Your task to perform on an android device: Set the phone to "Do not disturb". Image 0: 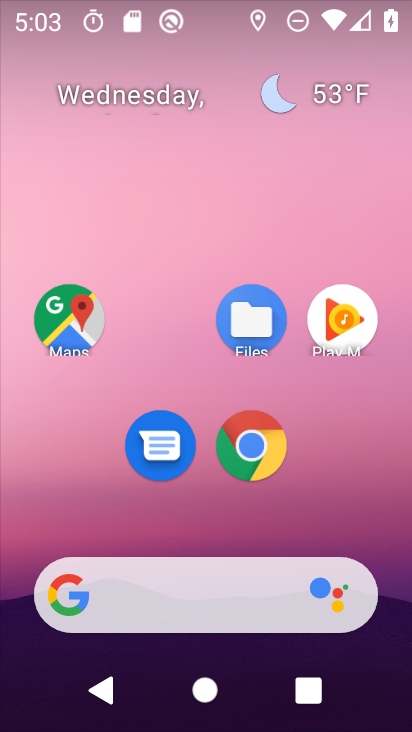
Step 0: drag from (350, 706) to (266, 202)
Your task to perform on an android device: Set the phone to "Do not disturb". Image 1: 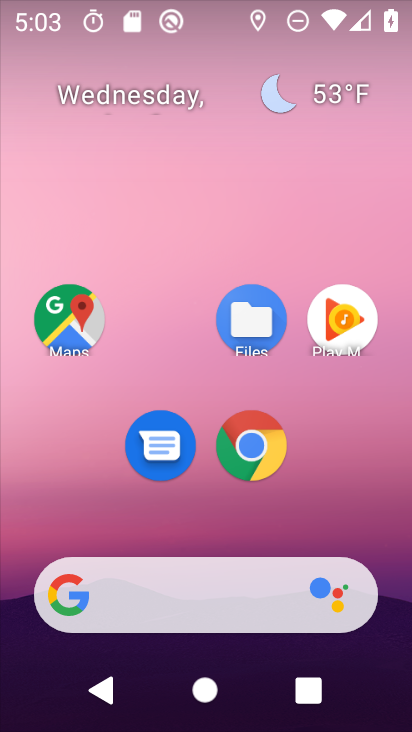
Step 1: drag from (387, 491) to (411, 117)
Your task to perform on an android device: Set the phone to "Do not disturb". Image 2: 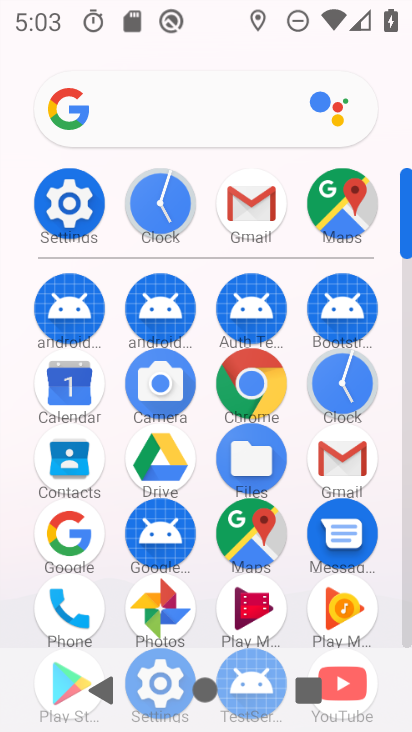
Step 2: click (82, 207)
Your task to perform on an android device: Set the phone to "Do not disturb". Image 3: 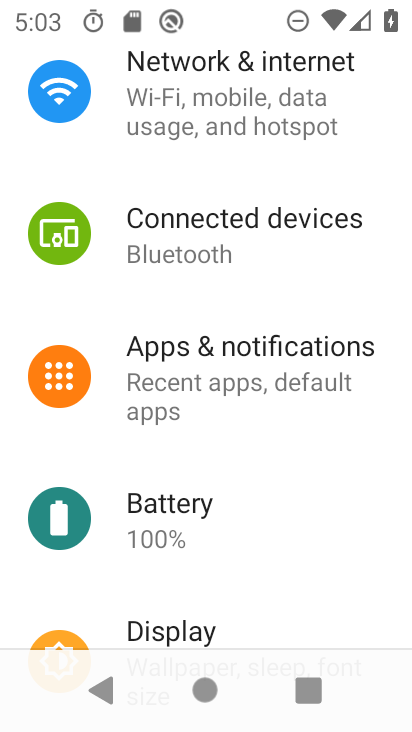
Step 3: click (275, 606)
Your task to perform on an android device: Set the phone to "Do not disturb". Image 4: 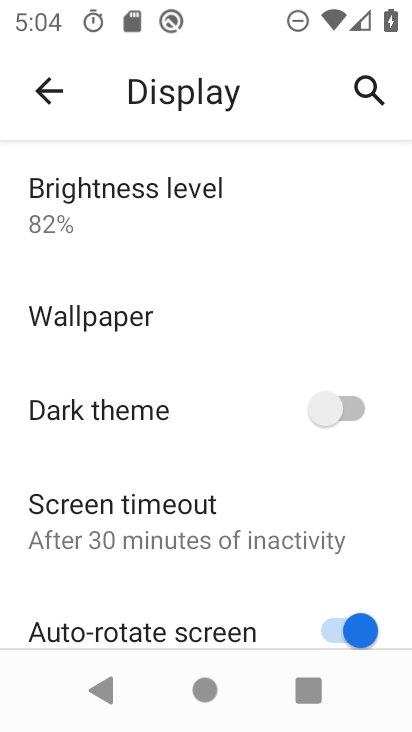
Step 4: drag from (258, 573) to (235, 393)
Your task to perform on an android device: Set the phone to "Do not disturb". Image 5: 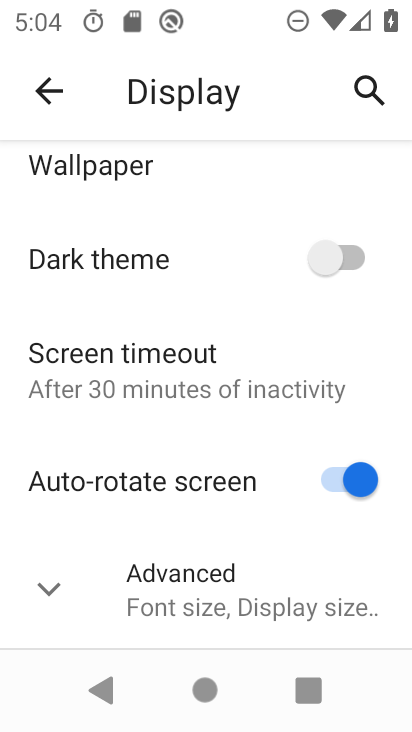
Step 5: click (255, 548)
Your task to perform on an android device: Set the phone to "Do not disturb". Image 6: 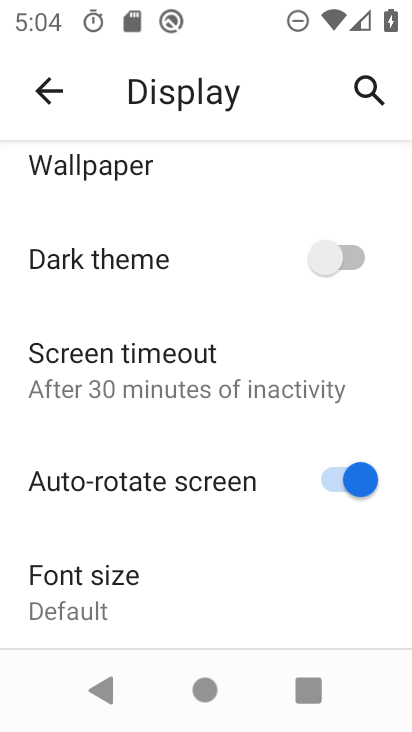
Step 6: drag from (234, 630) to (216, 502)
Your task to perform on an android device: Set the phone to "Do not disturb". Image 7: 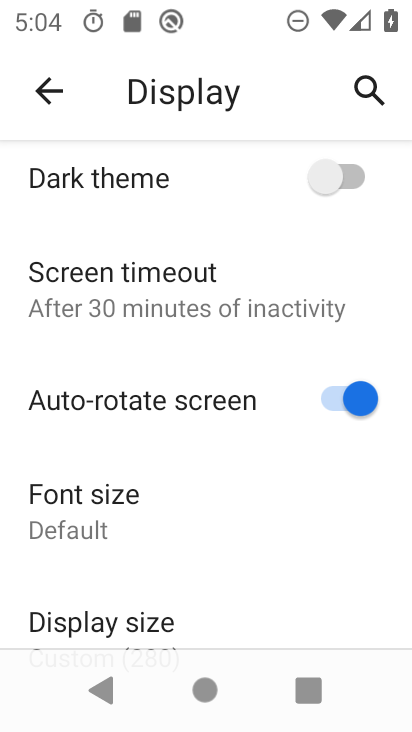
Step 7: press back button
Your task to perform on an android device: Set the phone to "Do not disturb". Image 8: 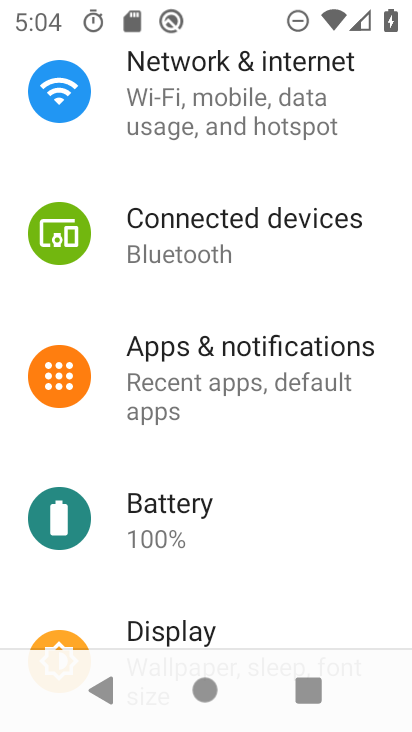
Step 8: click (260, 378)
Your task to perform on an android device: Set the phone to "Do not disturb". Image 9: 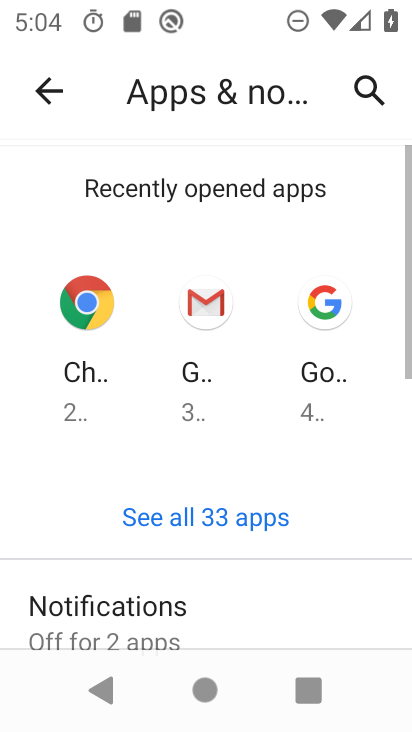
Step 9: drag from (248, 529) to (243, 394)
Your task to perform on an android device: Set the phone to "Do not disturb". Image 10: 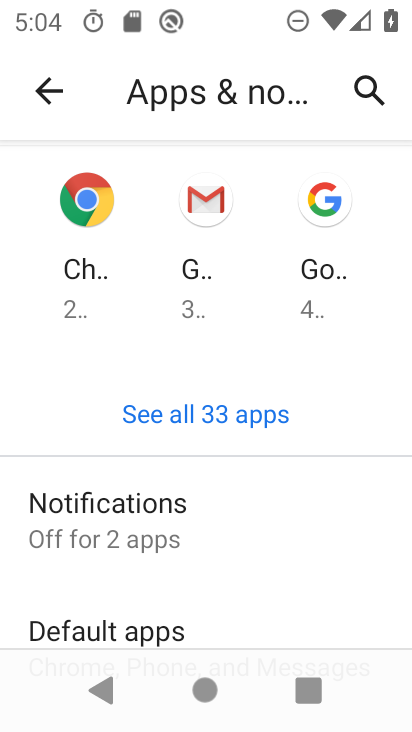
Step 10: drag from (258, 561) to (246, 382)
Your task to perform on an android device: Set the phone to "Do not disturb". Image 11: 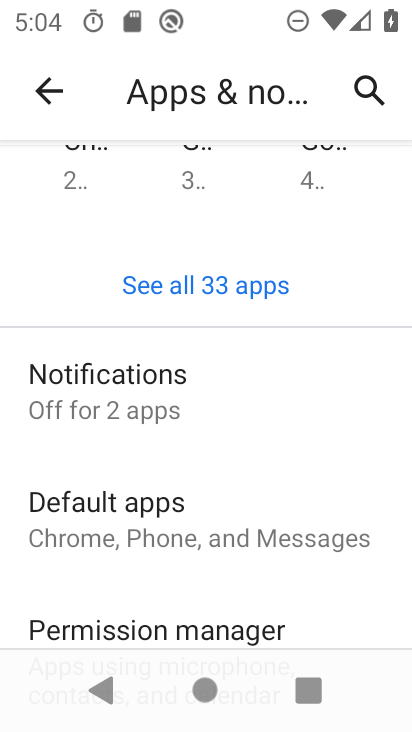
Step 11: drag from (252, 565) to (263, 399)
Your task to perform on an android device: Set the phone to "Do not disturb". Image 12: 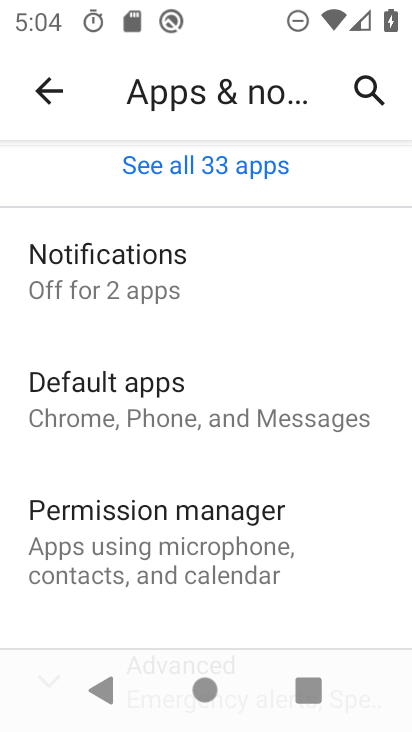
Step 12: press back button
Your task to perform on an android device: Set the phone to "Do not disturb". Image 13: 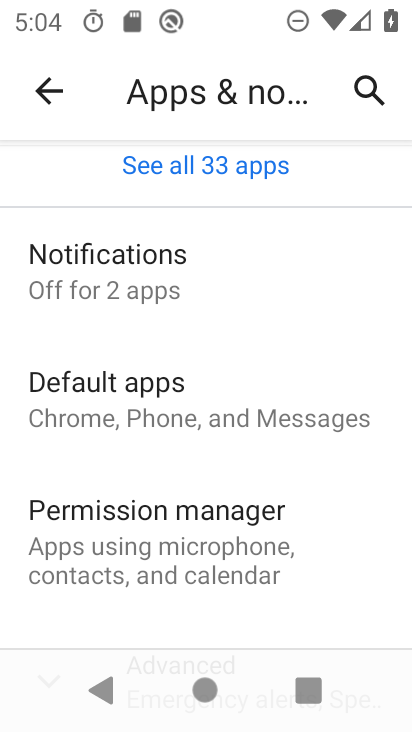
Step 13: press back button
Your task to perform on an android device: Set the phone to "Do not disturb". Image 14: 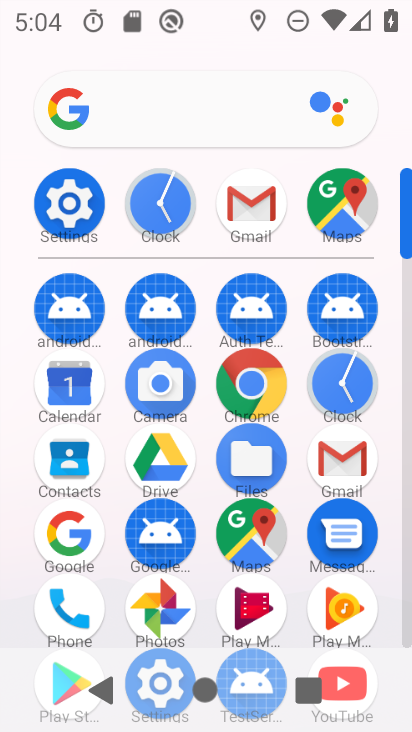
Step 14: click (47, 204)
Your task to perform on an android device: Set the phone to "Do not disturb". Image 15: 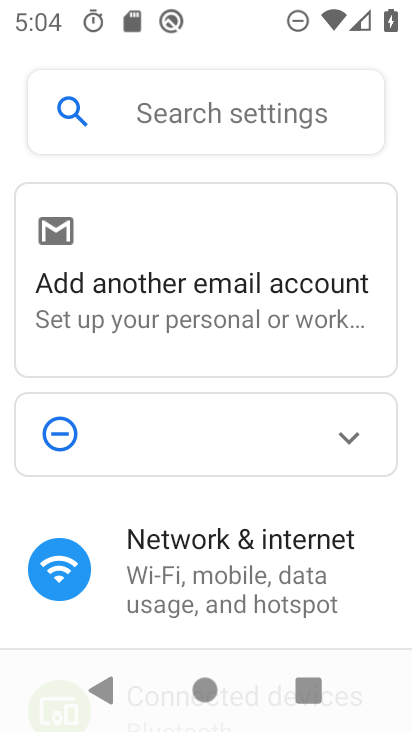
Step 15: drag from (388, 622) to (376, 438)
Your task to perform on an android device: Set the phone to "Do not disturb". Image 16: 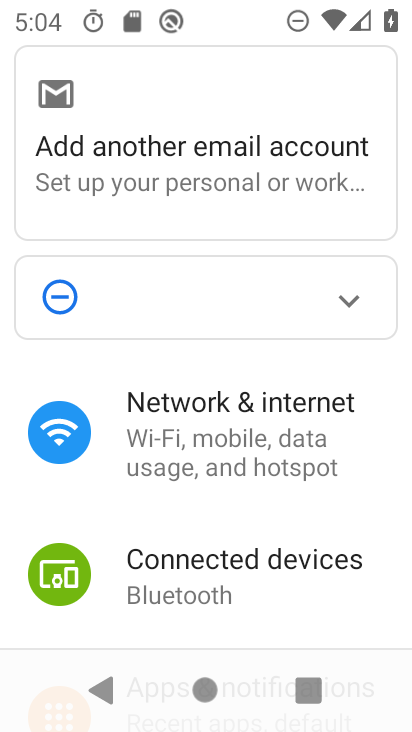
Step 16: click (371, 586)
Your task to perform on an android device: Set the phone to "Do not disturb". Image 17: 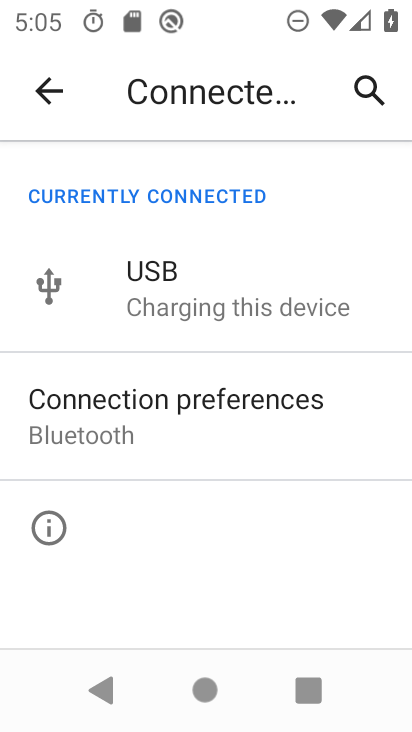
Step 17: press back button
Your task to perform on an android device: Set the phone to "Do not disturb". Image 18: 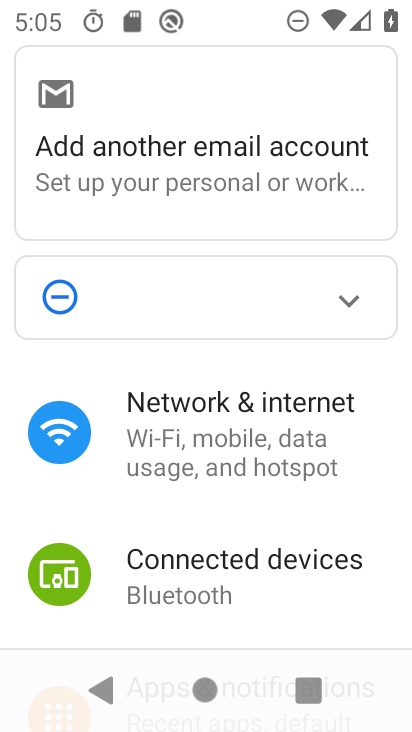
Step 18: drag from (281, 611) to (288, 236)
Your task to perform on an android device: Set the phone to "Do not disturb". Image 19: 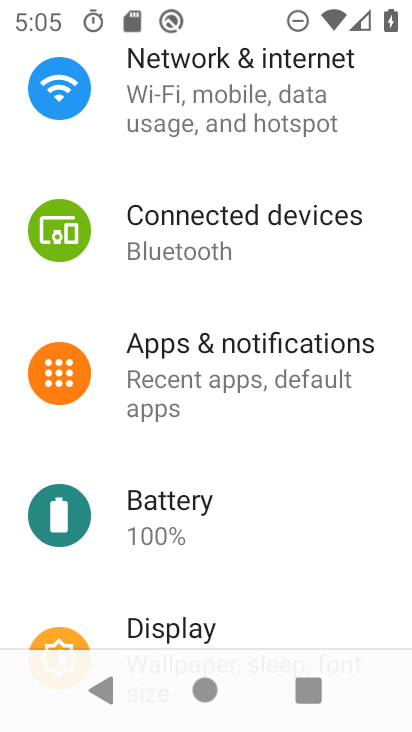
Step 19: drag from (274, 542) to (285, 190)
Your task to perform on an android device: Set the phone to "Do not disturb". Image 20: 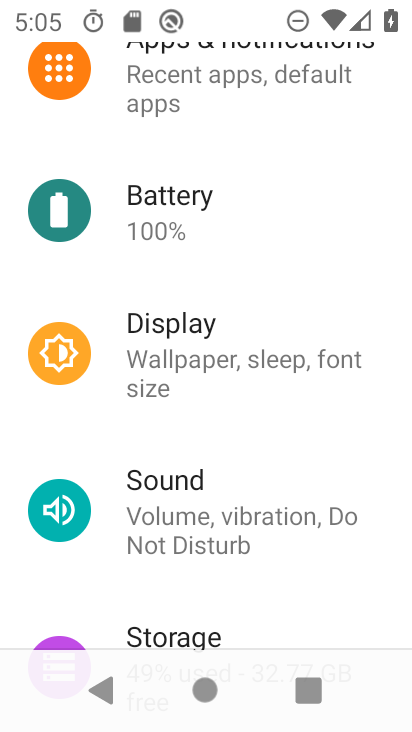
Step 20: drag from (269, 520) to (278, 222)
Your task to perform on an android device: Set the phone to "Do not disturb". Image 21: 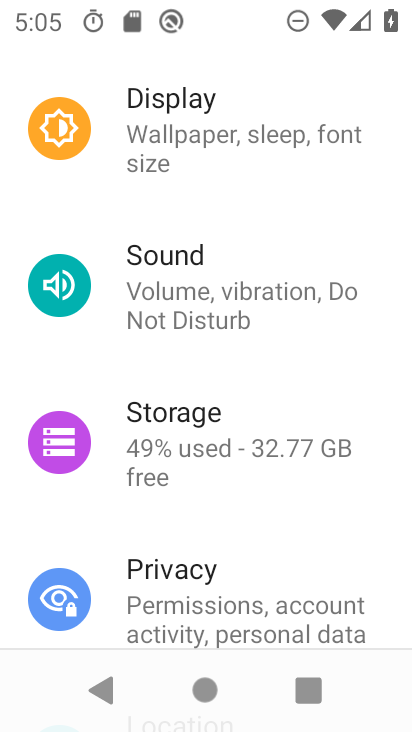
Step 21: drag from (266, 501) to (285, 202)
Your task to perform on an android device: Set the phone to "Do not disturb". Image 22: 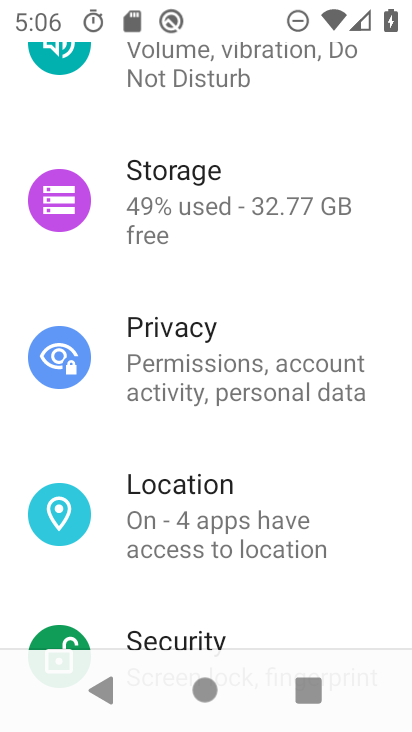
Step 22: drag from (233, 569) to (220, 200)
Your task to perform on an android device: Set the phone to "Do not disturb". Image 23: 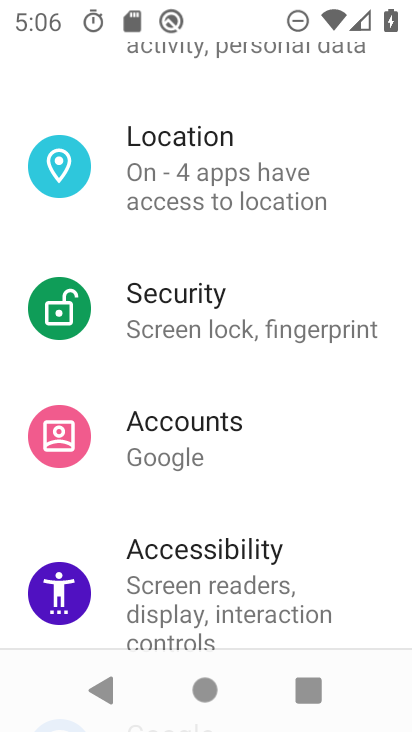
Step 23: drag from (241, 494) to (241, 243)
Your task to perform on an android device: Set the phone to "Do not disturb". Image 24: 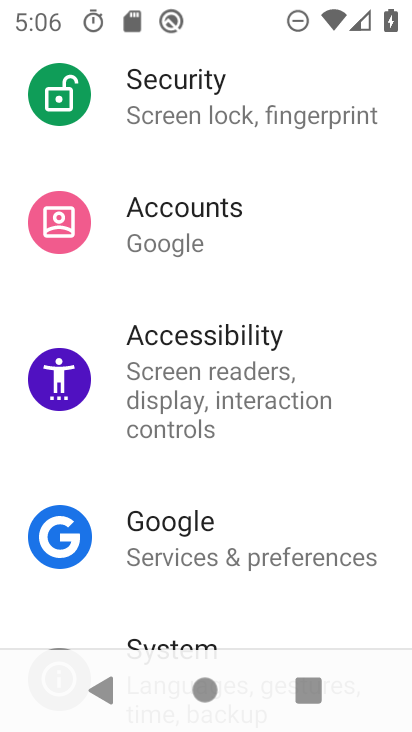
Step 24: drag from (256, 140) to (279, 570)
Your task to perform on an android device: Set the phone to "Do not disturb". Image 25: 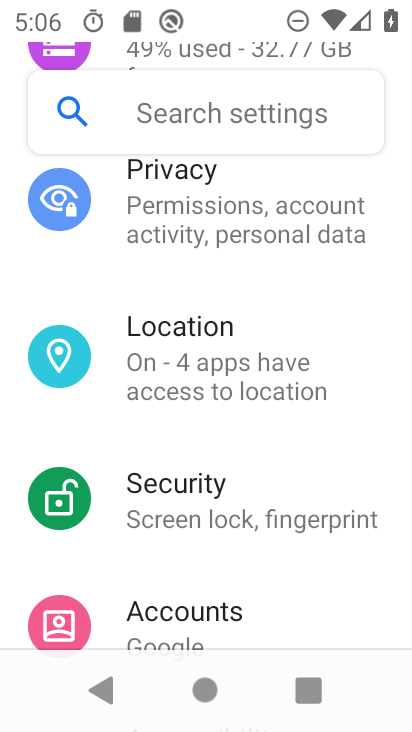
Step 25: drag from (280, 256) to (293, 485)
Your task to perform on an android device: Set the phone to "Do not disturb". Image 26: 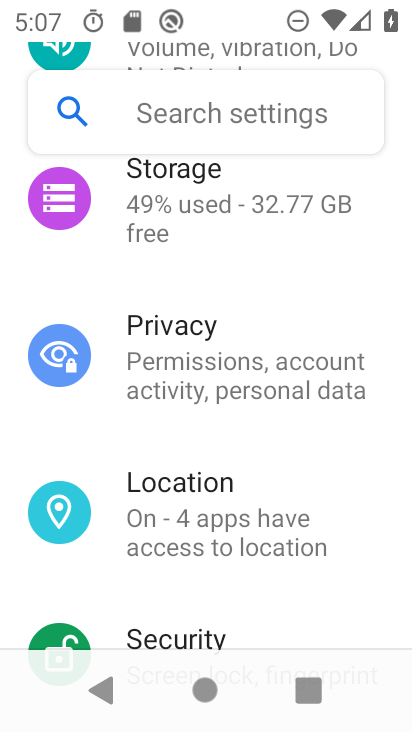
Step 26: drag from (283, 241) to (281, 521)
Your task to perform on an android device: Set the phone to "Do not disturb". Image 27: 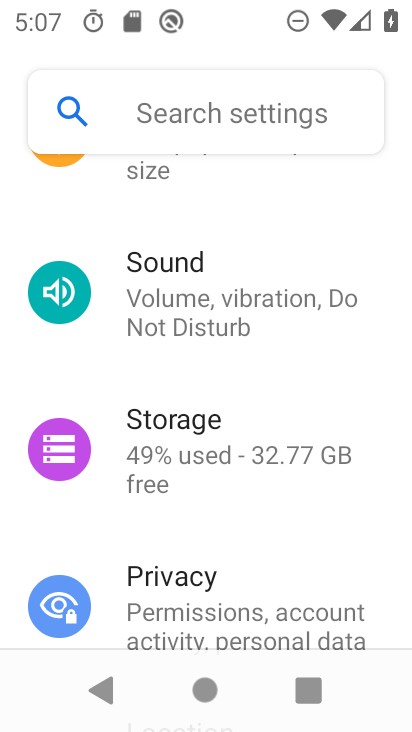
Step 27: click (286, 259)
Your task to perform on an android device: Set the phone to "Do not disturb". Image 28: 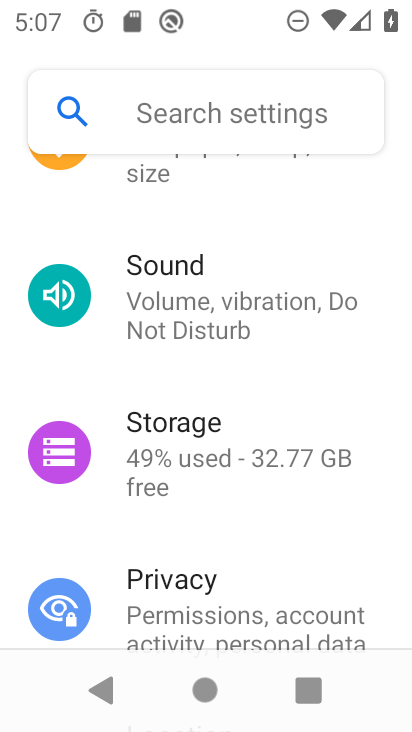
Step 28: click (292, 292)
Your task to perform on an android device: Set the phone to "Do not disturb". Image 29: 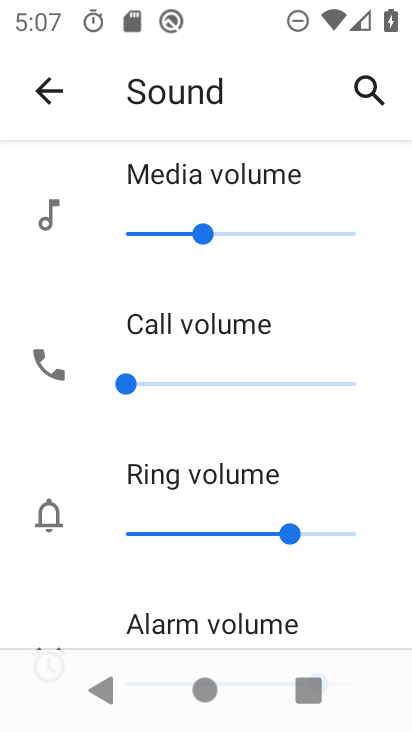
Step 29: drag from (383, 572) to (346, 259)
Your task to perform on an android device: Set the phone to "Do not disturb". Image 30: 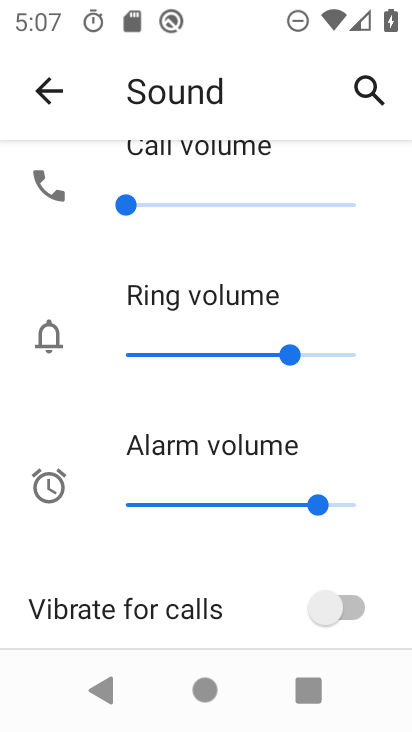
Step 30: drag from (275, 570) to (264, 224)
Your task to perform on an android device: Set the phone to "Do not disturb". Image 31: 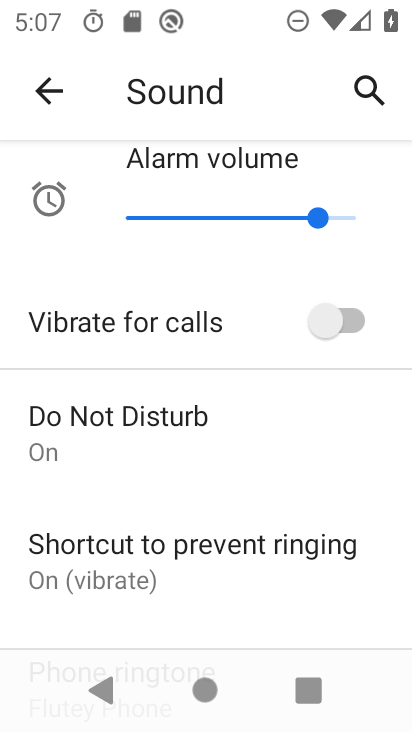
Step 31: click (130, 449)
Your task to perform on an android device: Set the phone to "Do not disturb". Image 32: 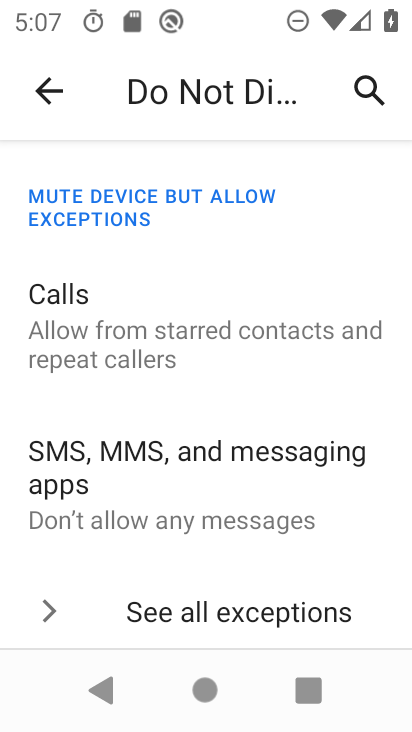
Step 32: task complete